Your task to perform on an android device: star an email in the gmail app Image 0: 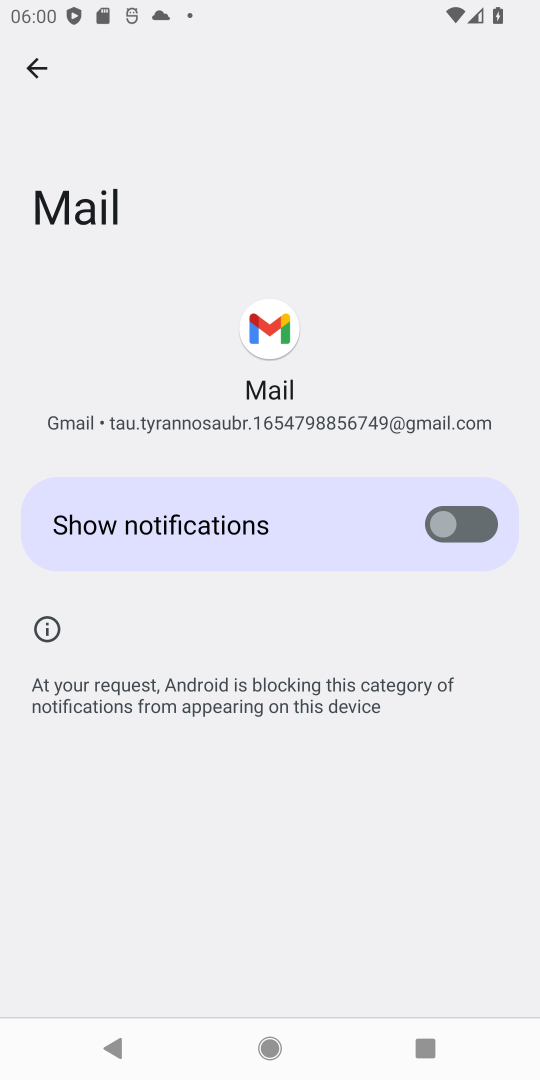
Step 0: press back button
Your task to perform on an android device: star an email in the gmail app Image 1: 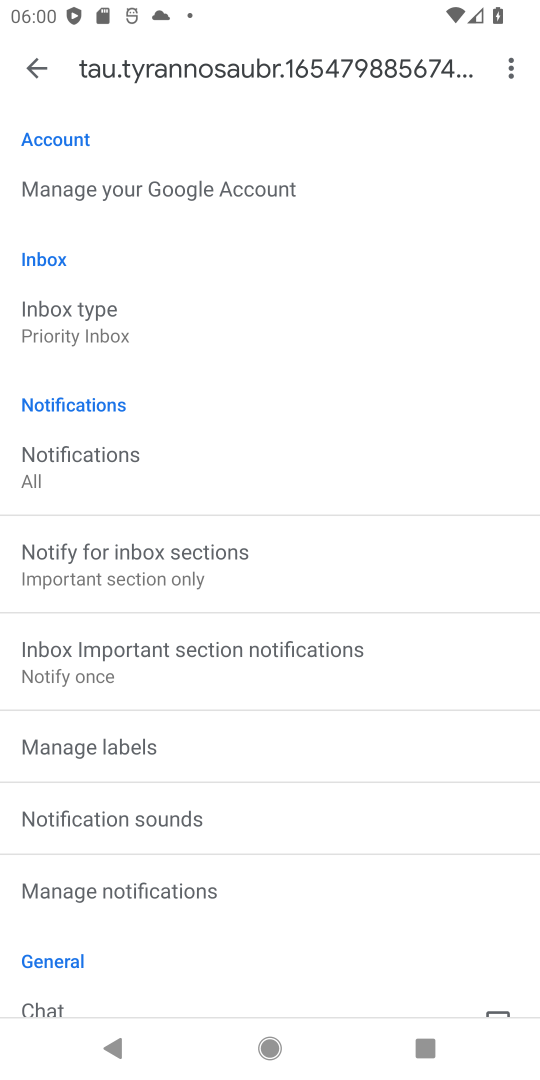
Step 1: task complete